Your task to perform on an android device: Do I have any events today? Image 0: 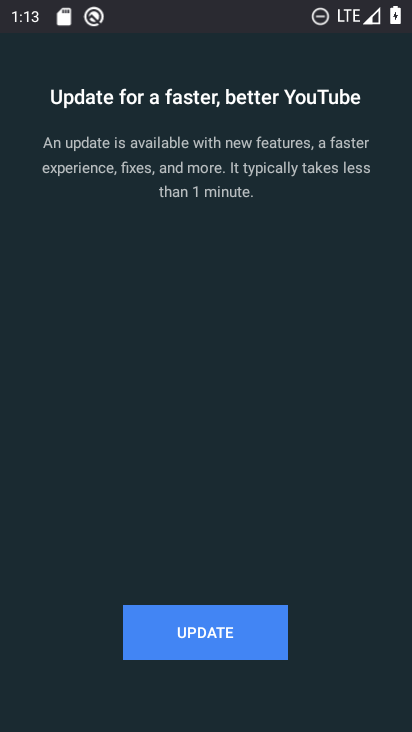
Step 0: press home button
Your task to perform on an android device: Do I have any events today? Image 1: 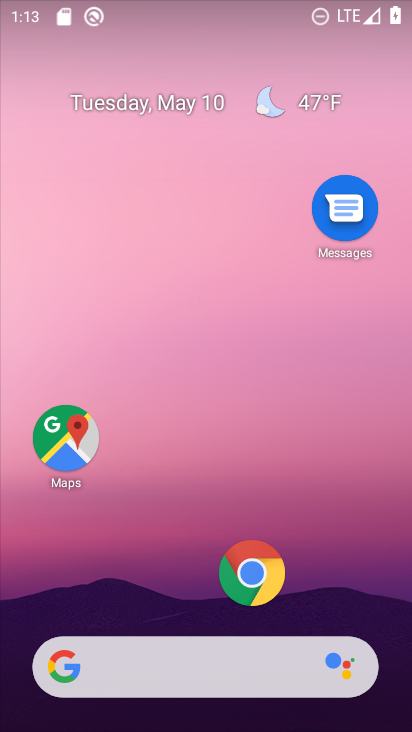
Step 1: drag from (187, 601) to (212, 272)
Your task to perform on an android device: Do I have any events today? Image 2: 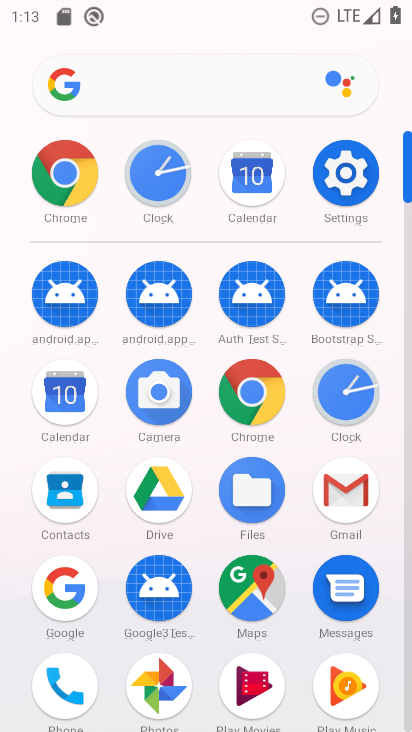
Step 2: click (66, 385)
Your task to perform on an android device: Do I have any events today? Image 3: 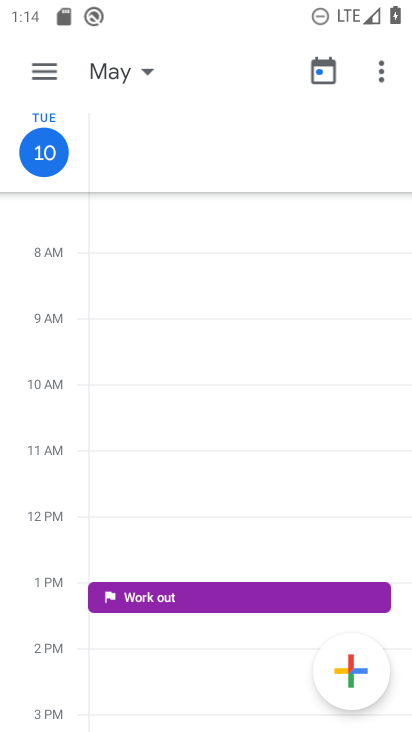
Step 3: click (129, 61)
Your task to perform on an android device: Do I have any events today? Image 4: 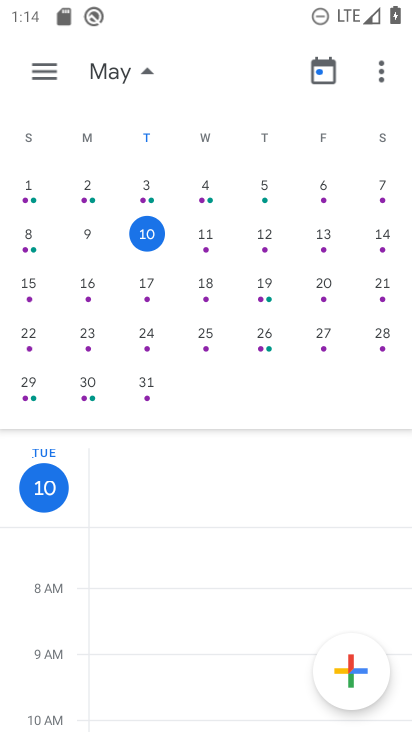
Step 4: click (167, 232)
Your task to perform on an android device: Do I have any events today? Image 5: 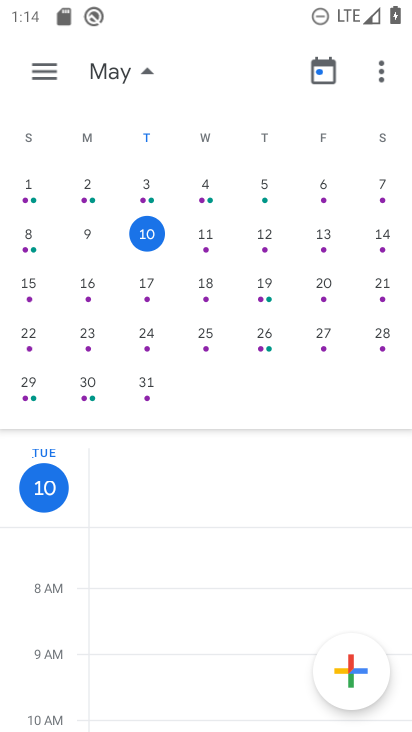
Step 5: click (160, 233)
Your task to perform on an android device: Do I have any events today? Image 6: 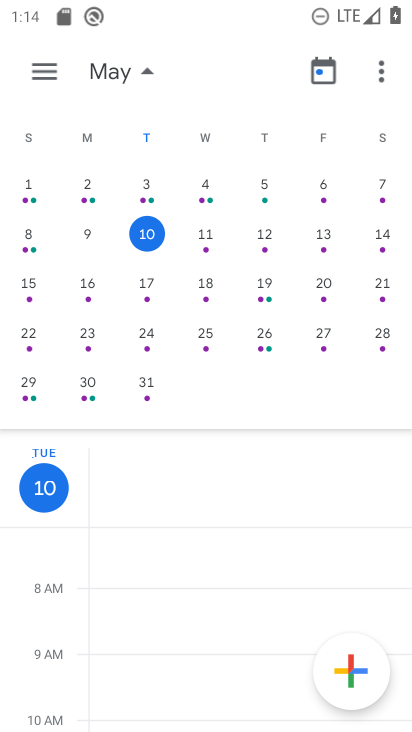
Step 6: task complete